Your task to perform on an android device: Search for vegetarian restaurants on Maps Image 0: 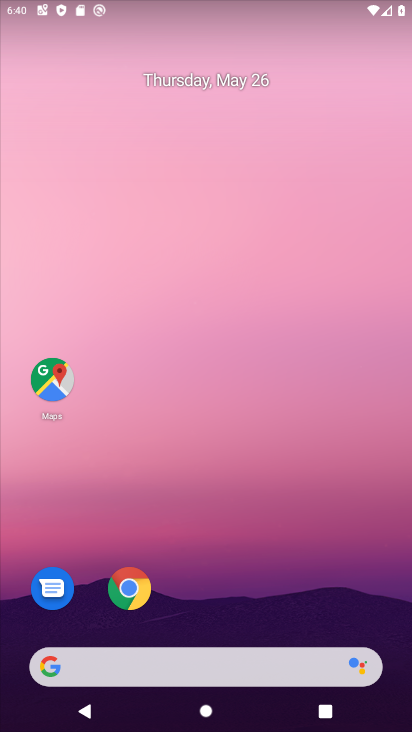
Step 0: drag from (385, 634) to (279, 39)
Your task to perform on an android device: Search for vegetarian restaurants on Maps Image 1: 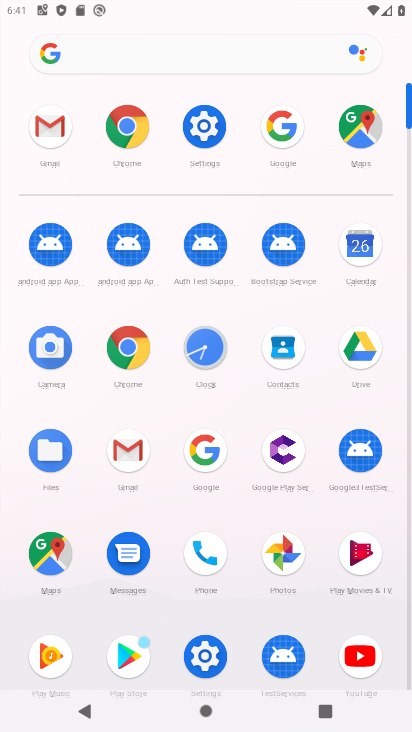
Step 1: click (368, 128)
Your task to perform on an android device: Search for vegetarian restaurants on Maps Image 2: 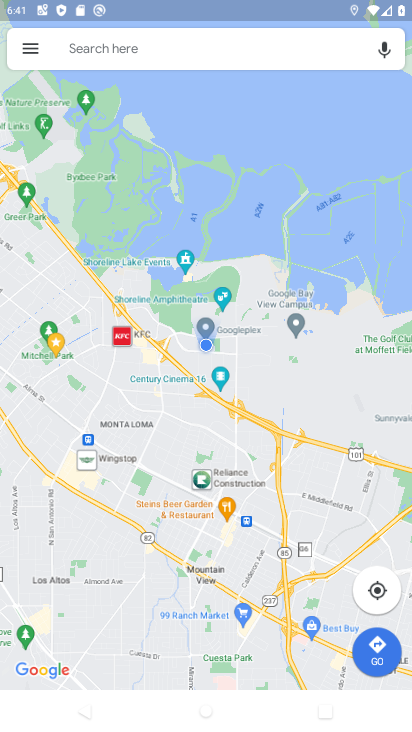
Step 2: click (129, 44)
Your task to perform on an android device: Search for vegetarian restaurants on Maps Image 3: 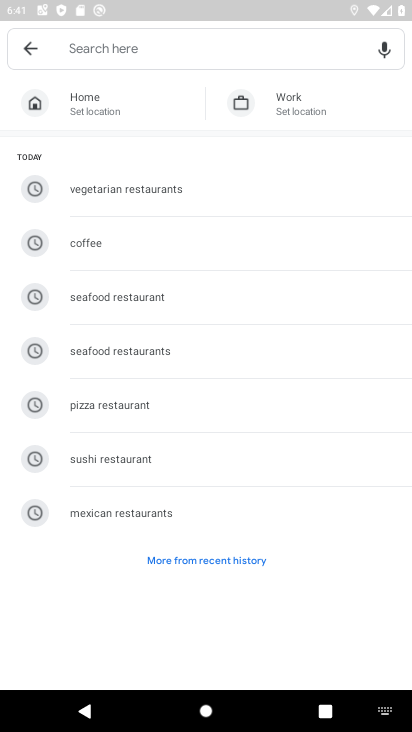
Step 3: click (131, 197)
Your task to perform on an android device: Search for vegetarian restaurants on Maps Image 4: 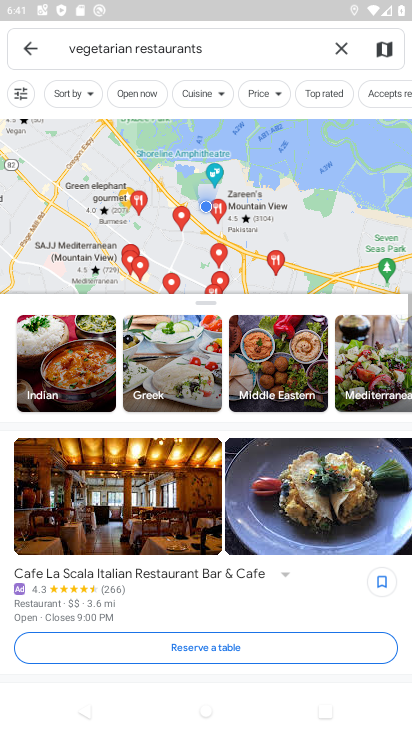
Step 4: task complete